Your task to perform on an android device: What's the weather? Image 0: 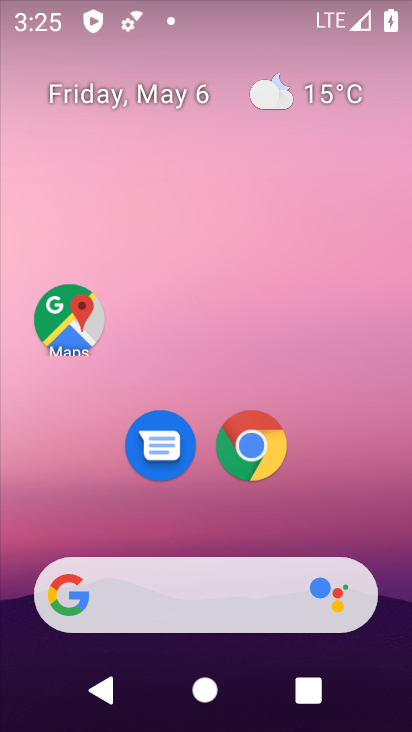
Step 0: click (264, 456)
Your task to perform on an android device: What's the weather? Image 1: 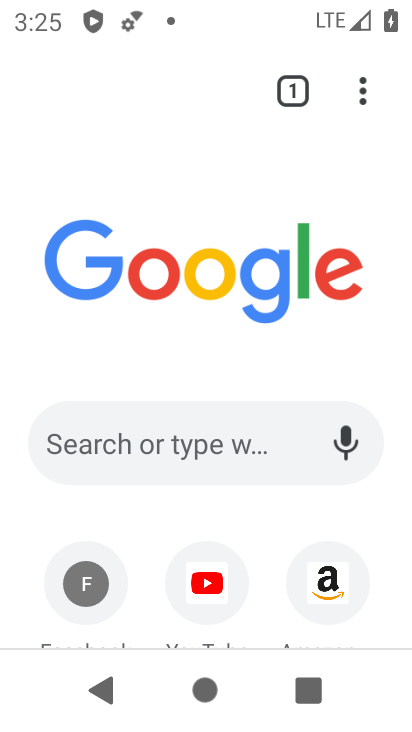
Step 1: click (162, 452)
Your task to perform on an android device: What's the weather? Image 2: 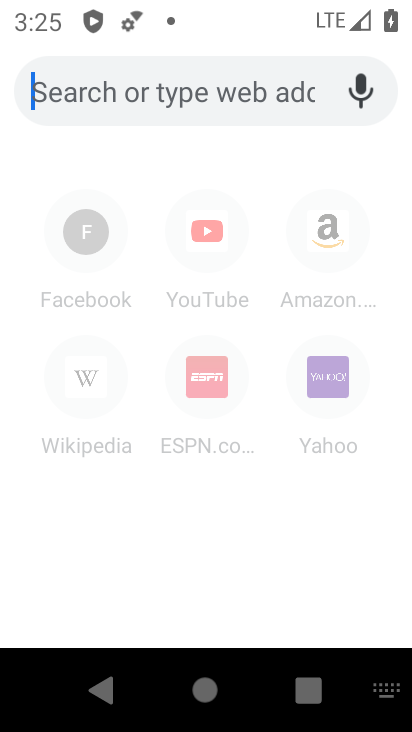
Step 2: type "weather"
Your task to perform on an android device: What's the weather? Image 3: 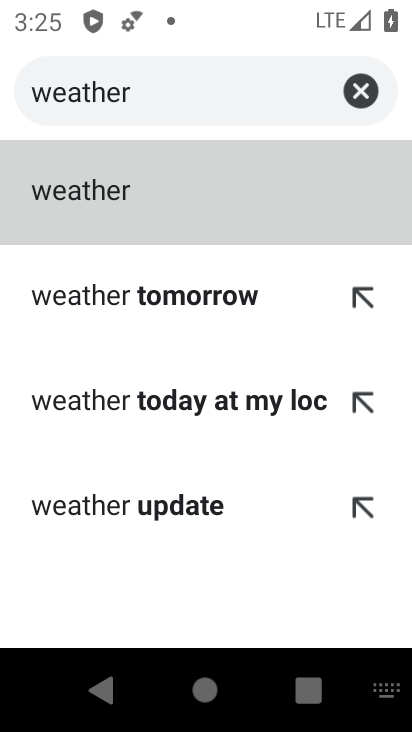
Step 3: click (122, 202)
Your task to perform on an android device: What's the weather? Image 4: 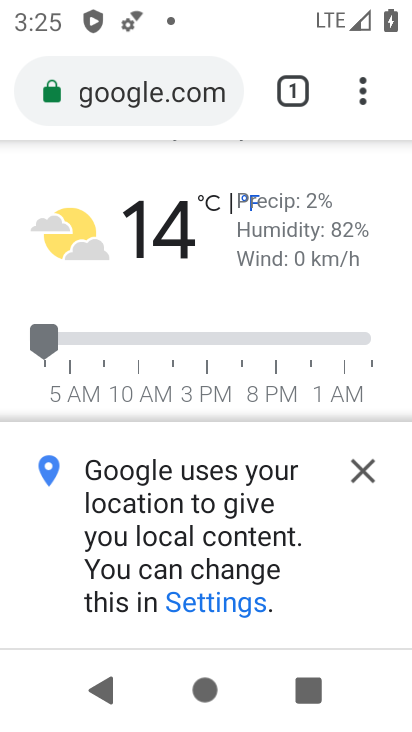
Step 4: click (356, 482)
Your task to perform on an android device: What's the weather? Image 5: 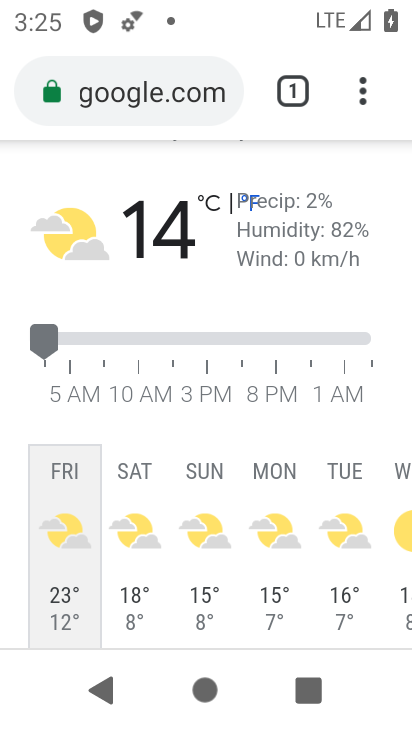
Step 5: task complete